Your task to perform on an android device: find which apps use the phone's location Image 0: 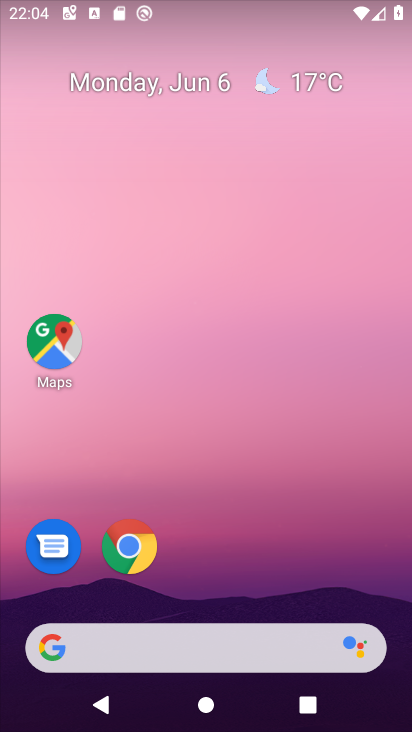
Step 0: drag from (378, 606) to (350, 243)
Your task to perform on an android device: find which apps use the phone's location Image 1: 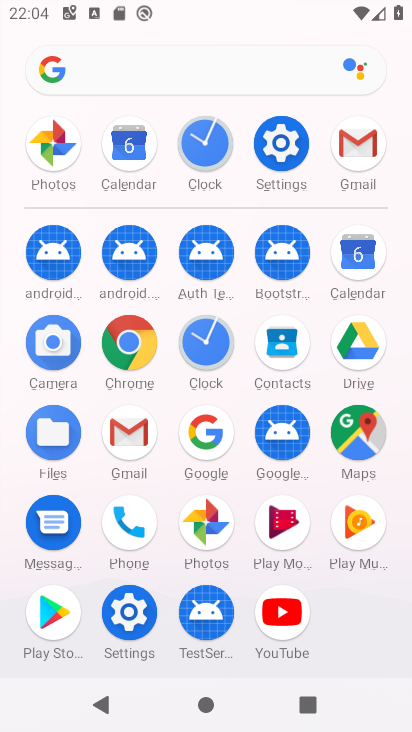
Step 1: click (132, 612)
Your task to perform on an android device: find which apps use the phone's location Image 2: 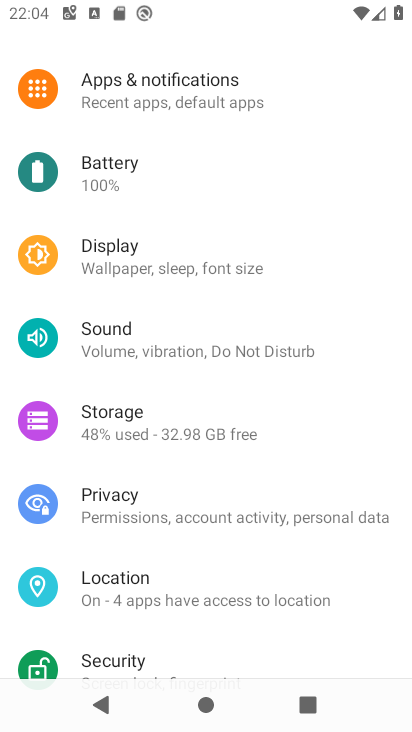
Step 2: click (122, 578)
Your task to perform on an android device: find which apps use the phone's location Image 3: 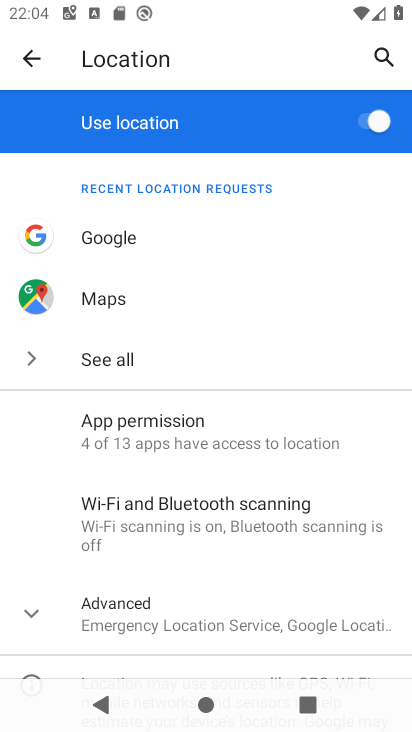
Step 3: click (142, 422)
Your task to perform on an android device: find which apps use the phone's location Image 4: 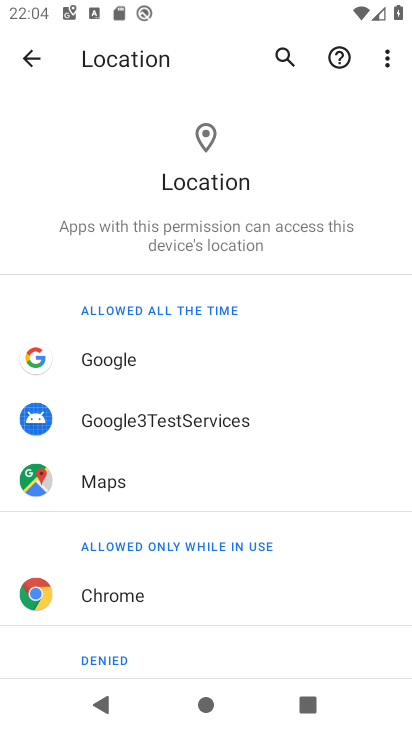
Step 4: drag from (288, 577) to (238, 171)
Your task to perform on an android device: find which apps use the phone's location Image 5: 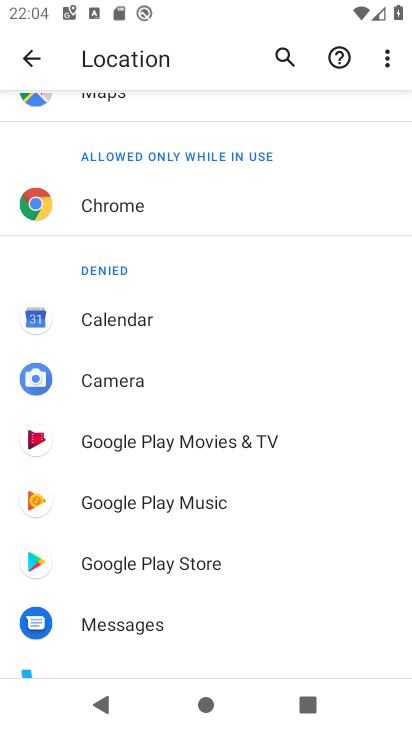
Step 5: drag from (255, 603) to (263, 270)
Your task to perform on an android device: find which apps use the phone's location Image 6: 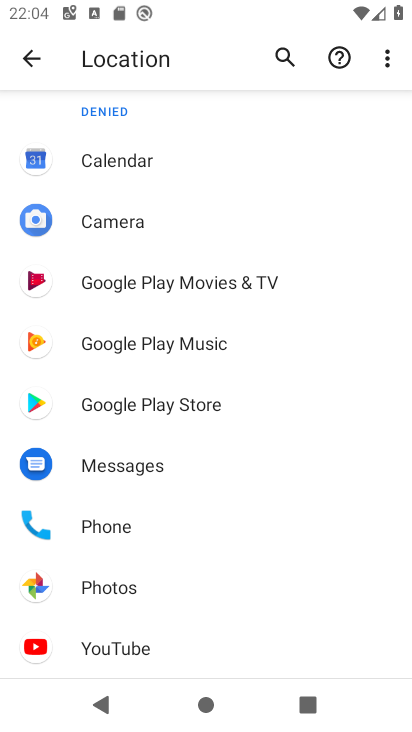
Step 6: click (111, 581)
Your task to perform on an android device: find which apps use the phone's location Image 7: 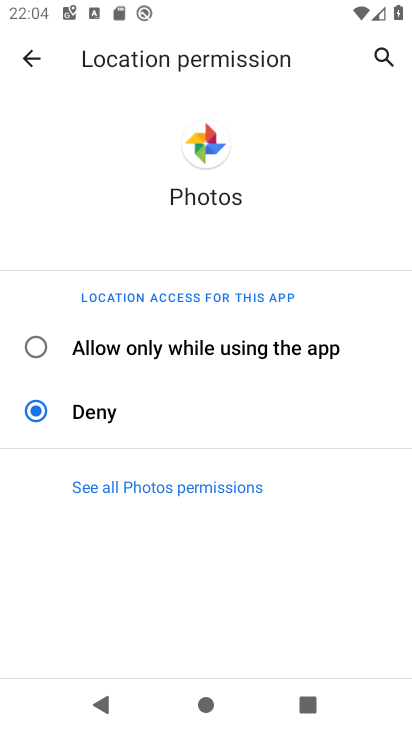
Step 7: task complete